Your task to perform on an android device: check data usage Image 0: 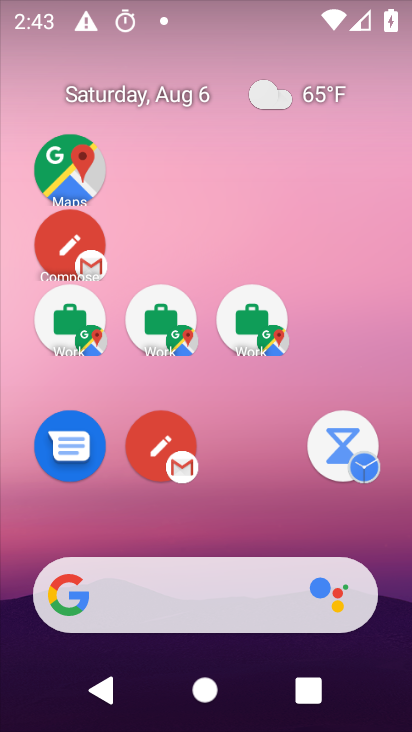
Step 0: drag from (294, 510) to (231, 217)
Your task to perform on an android device: check data usage Image 1: 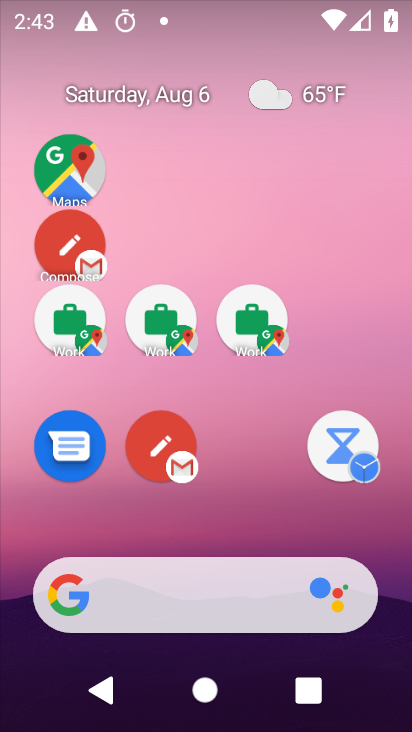
Step 1: drag from (254, 556) to (191, 280)
Your task to perform on an android device: check data usage Image 2: 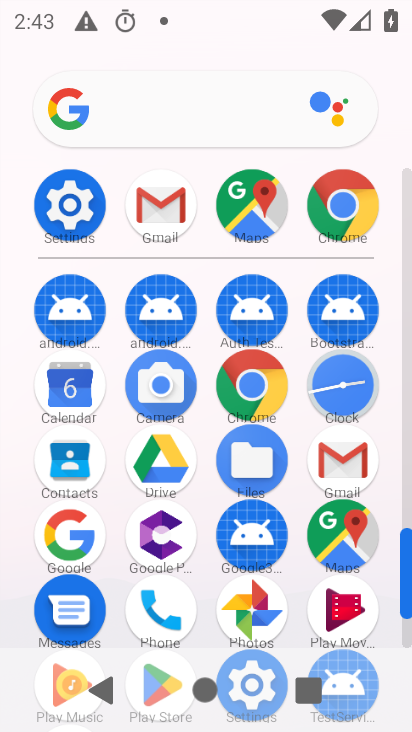
Step 2: drag from (229, 551) to (210, 446)
Your task to perform on an android device: check data usage Image 3: 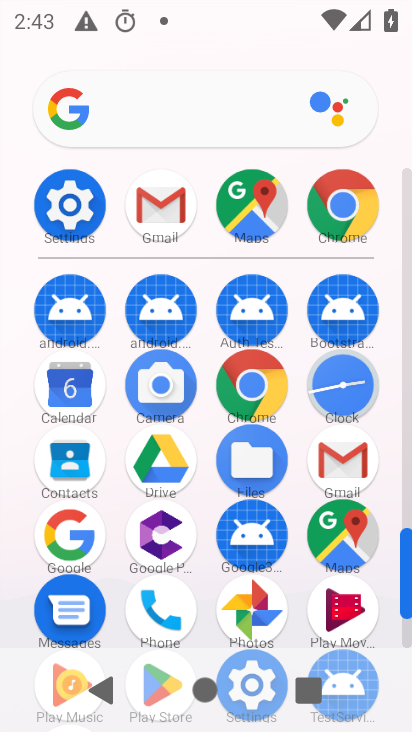
Step 3: click (86, 208)
Your task to perform on an android device: check data usage Image 4: 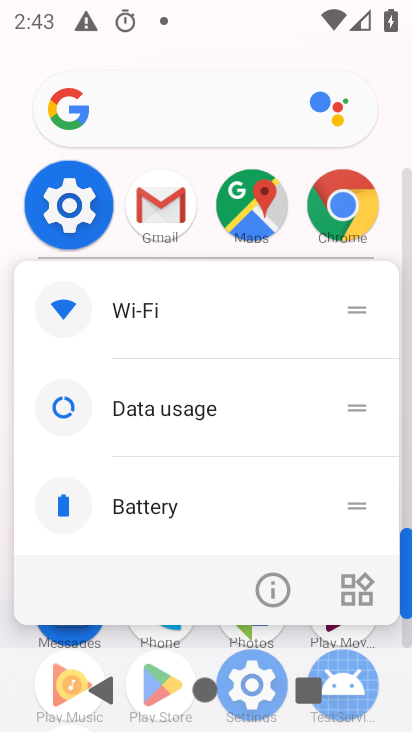
Step 4: click (45, 200)
Your task to perform on an android device: check data usage Image 5: 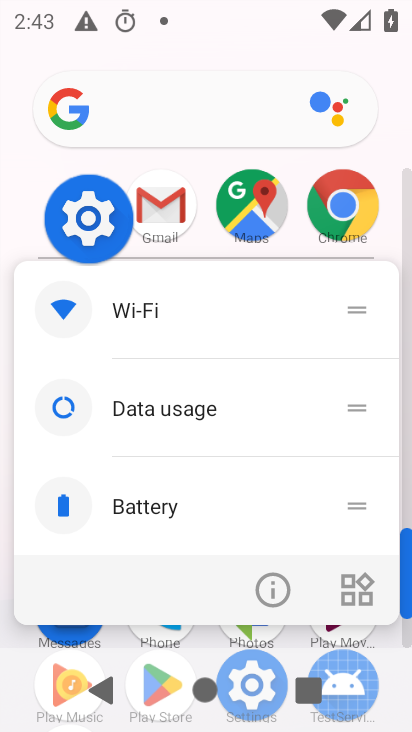
Step 5: click (72, 214)
Your task to perform on an android device: check data usage Image 6: 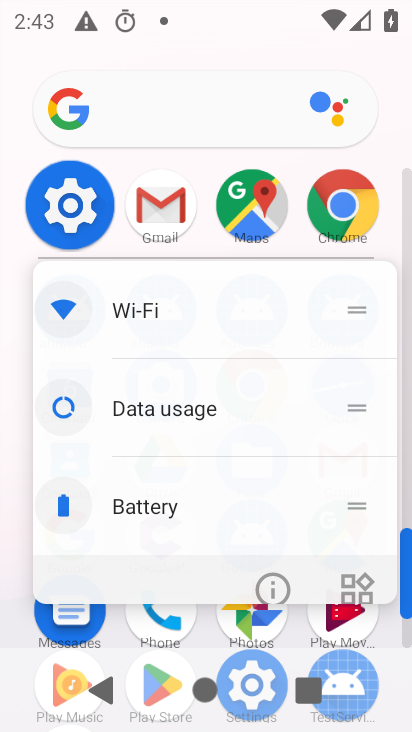
Step 6: click (92, 227)
Your task to perform on an android device: check data usage Image 7: 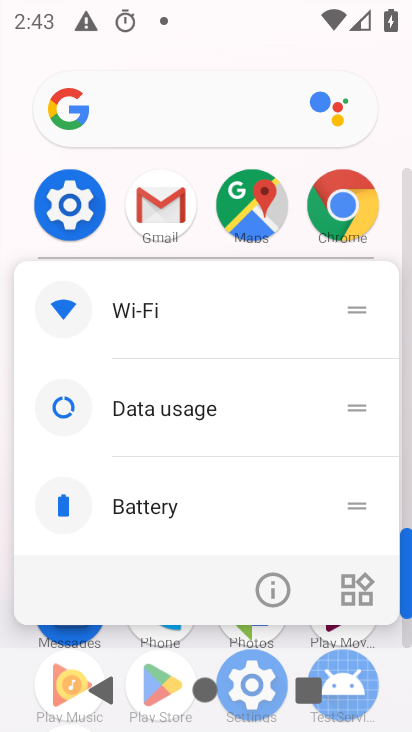
Step 7: click (71, 209)
Your task to perform on an android device: check data usage Image 8: 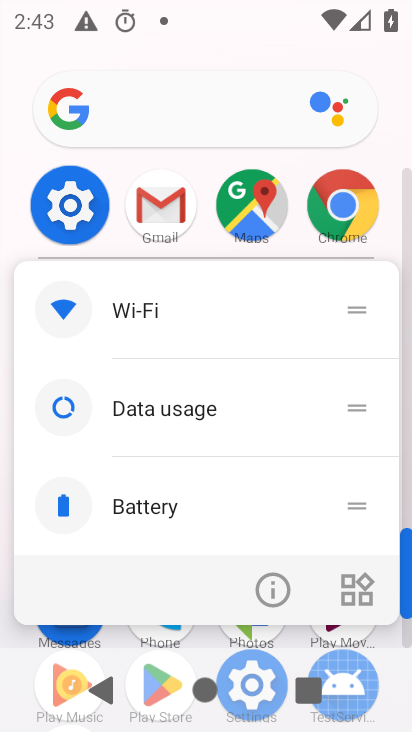
Step 8: click (71, 209)
Your task to perform on an android device: check data usage Image 9: 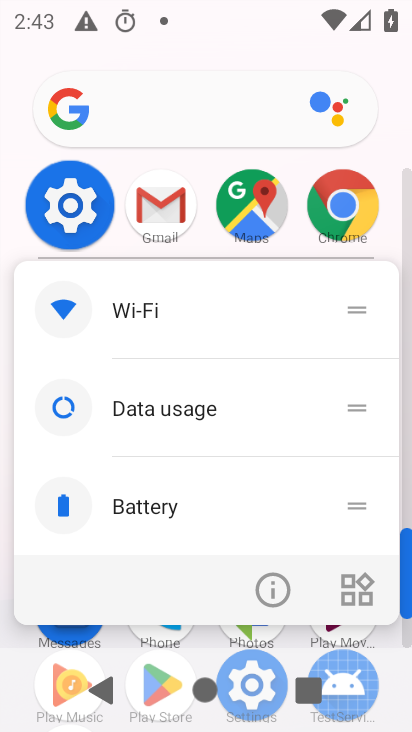
Step 9: click (76, 203)
Your task to perform on an android device: check data usage Image 10: 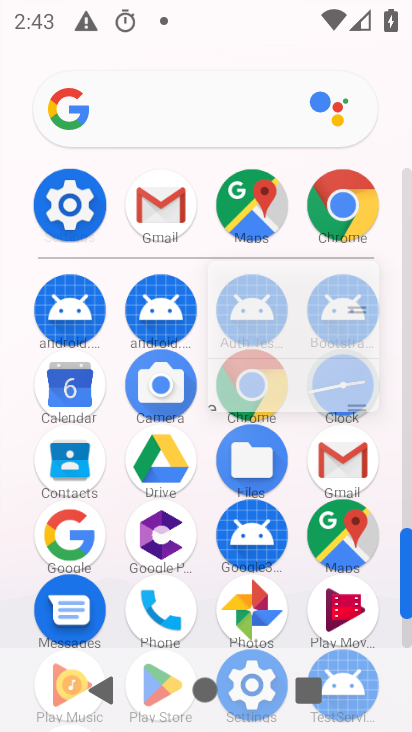
Step 10: click (76, 203)
Your task to perform on an android device: check data usage Image 11: 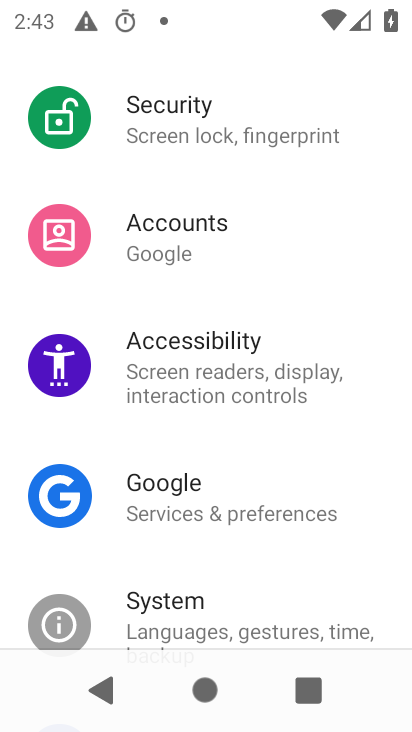
Step 11: click (77, 204)
Your task to perform on an android device: check data usage Image 12: 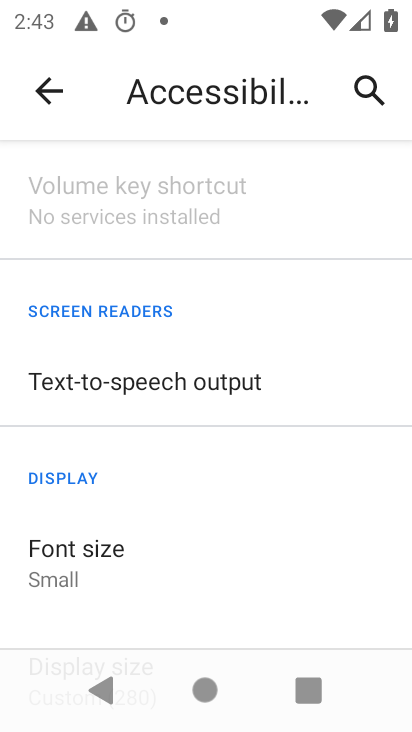
Step 12: click (39, 84)
Your task to perform on an android device: check data usage Image 13: 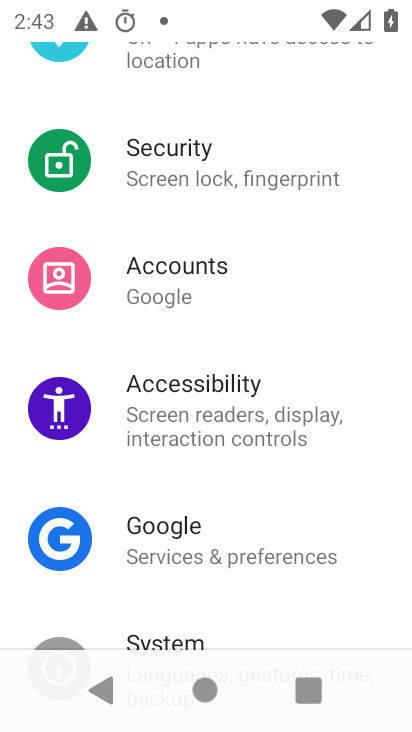
Step 13: drag from (149, 431) to (183, 530)
Your task to perform on an android device: check data usage Image 14: 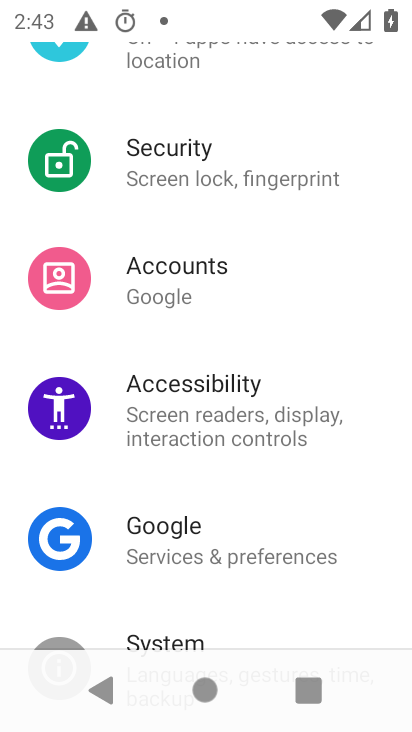
Step 14: drag from (221, 535) to (93, 488)
Your task to perform on an android device: check data usage Image 15: 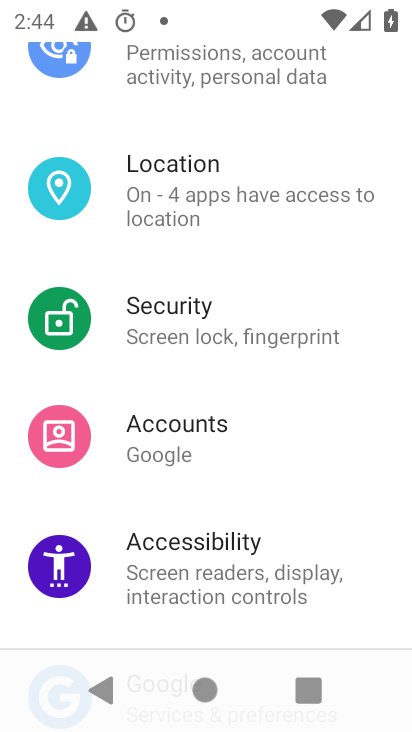
Step 15: click (131, 498)
Your task to perform on an android device: check data usage Image 16: 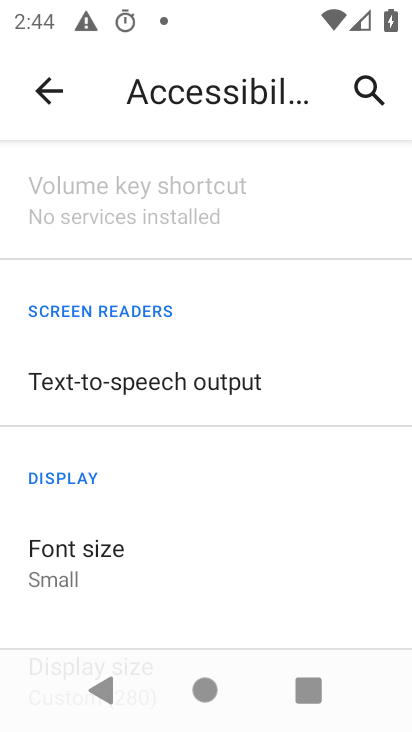
Step 16: click (52, 78)
Your task to perform on an android device: check data usage Image 17: 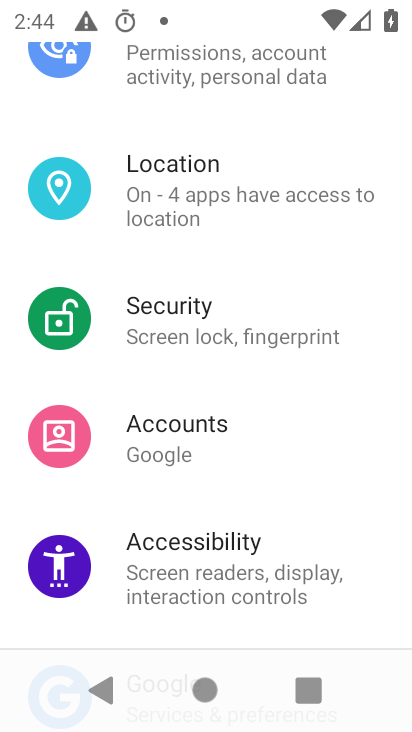
Step 17: drag from (193, 181) to (245, 604)
Your task to perform on an android device: check data usage Image 18: 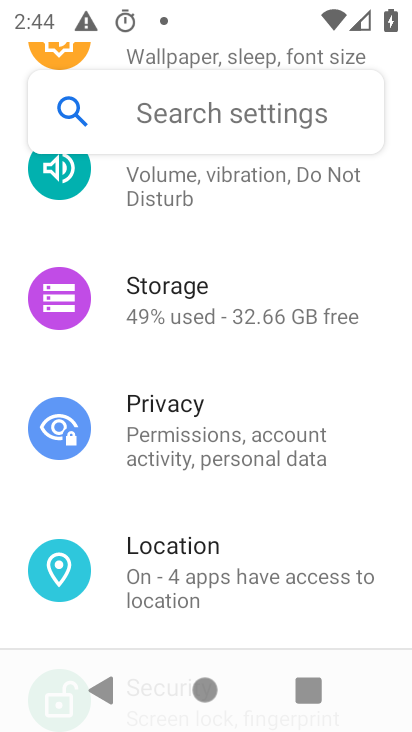
Step 18: drag from (209, 235) to (243, 499)
Your task to perform on an android device: check data usage Image 19: 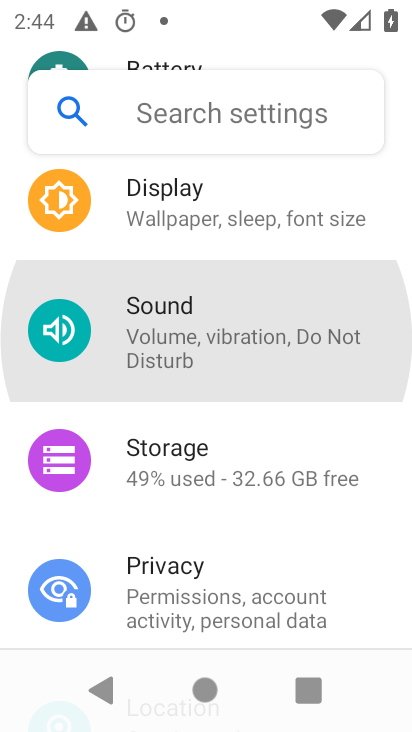
Step 19: drag from (190, 174) to (210, 609)
Your task to perform on an android device: check data usage Image 20: 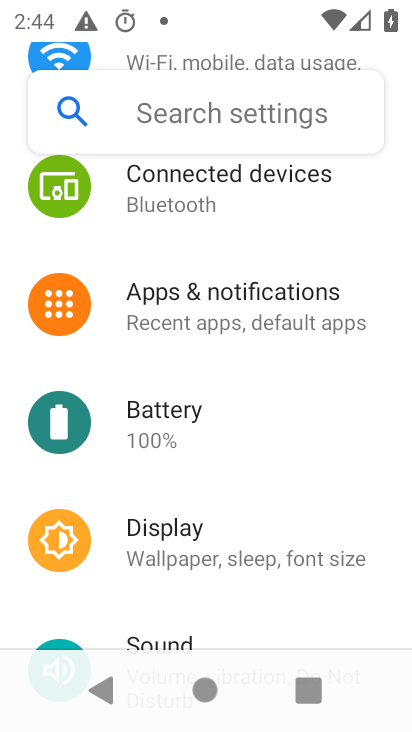
Step 20: drag from (198, 314) to (211, 587)
Your task to perform on an android device: check data usage Image 21: 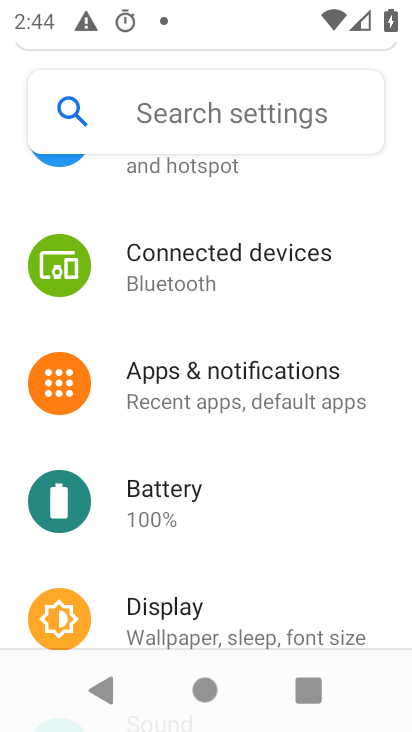
Step 21: drag from (168, 438) to (189, 641)
Your task to perform on an android device: check data usage Image 22: 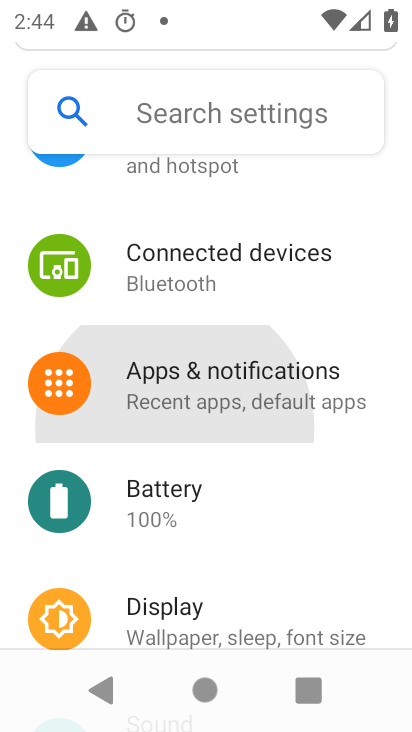
Step 22: drag from (201, 236) to (207, 527)
Your task to perform on an android device: check data usage Image 23: 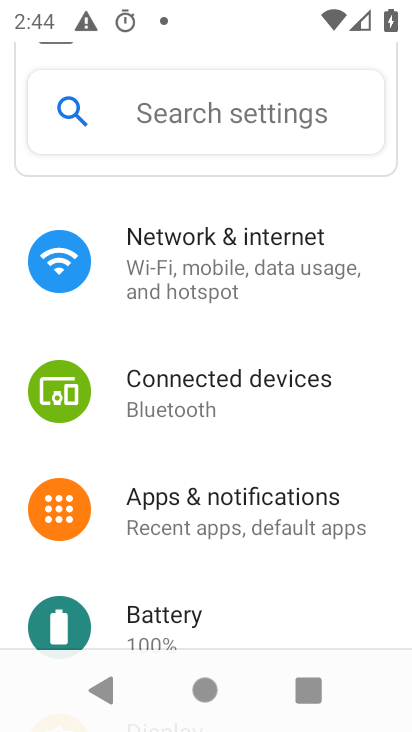
Step 23: click (203, 488)
Your task to perform on an android device: check data usage Image 24: 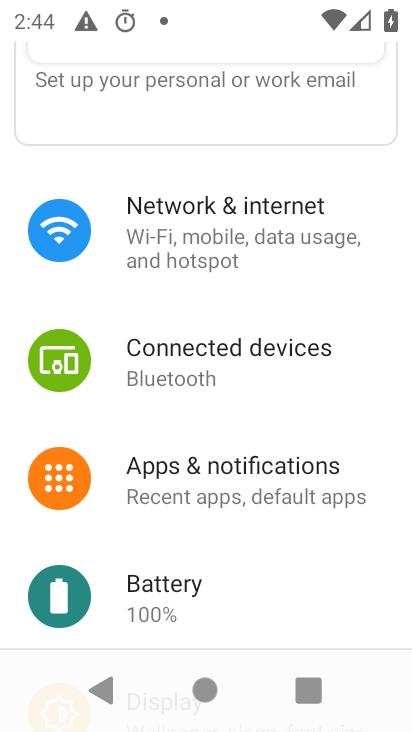
Step 24: drag from (203, 359) to (222, 532)
Your task to perform on an android device: check data usage Image 25: 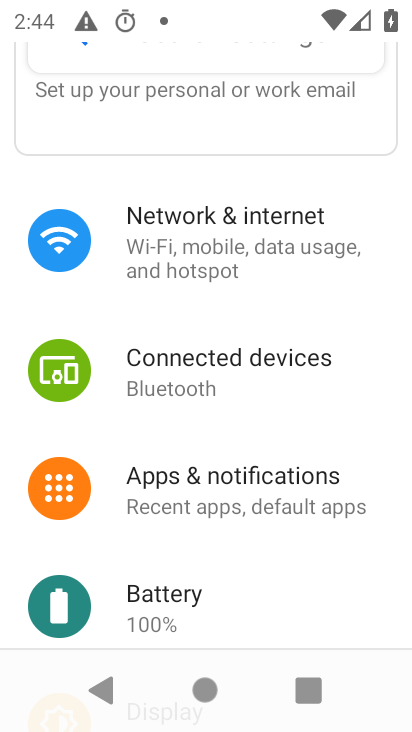
Step 25: click (211, 240)
Your task to perform on an android device: check data usage Image 26: 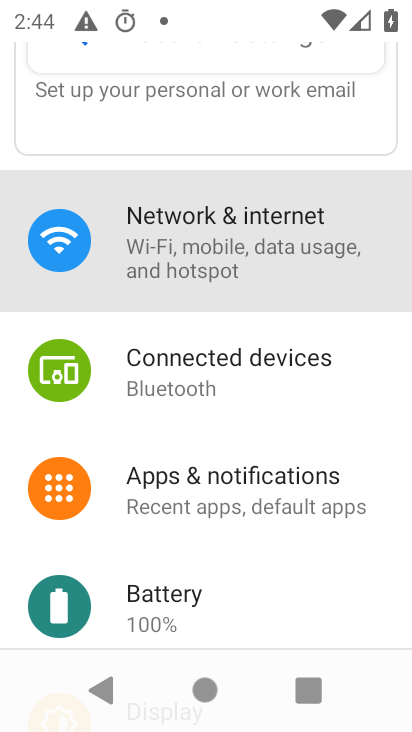
Step 26: click (211, 240)
Your task to perform on an android device: check data usage Image 27: 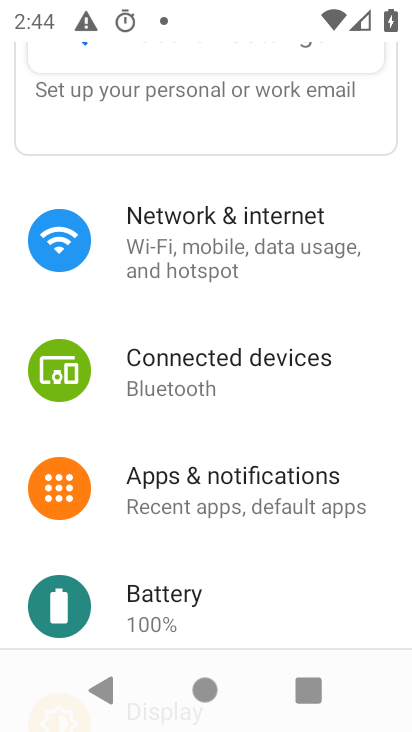
Step 27: click (211, 240)
Your task to perform on an android device: check data usage Image 28: 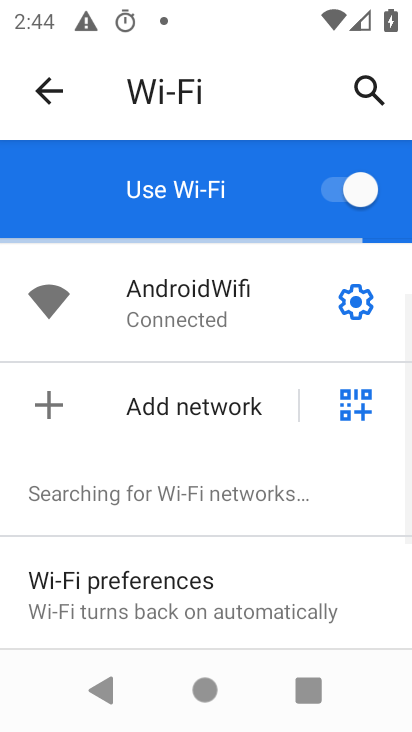
Step 28: click (52, 99)
Your task to perform on an android device: check data usage Image 29: 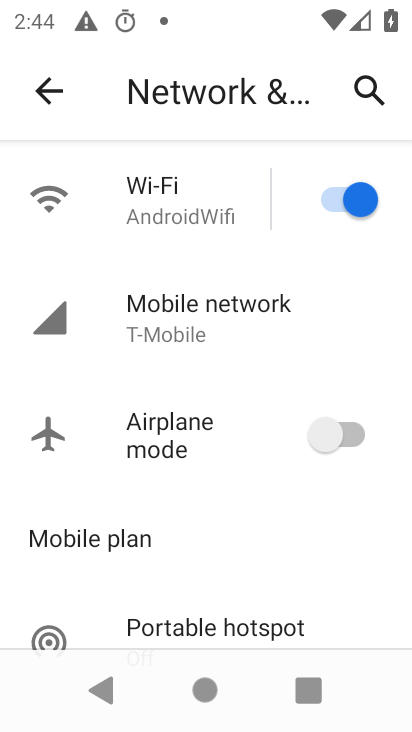
Step 29: click (187, 320)
Your task to perform on an android device: check data usage Image 30: 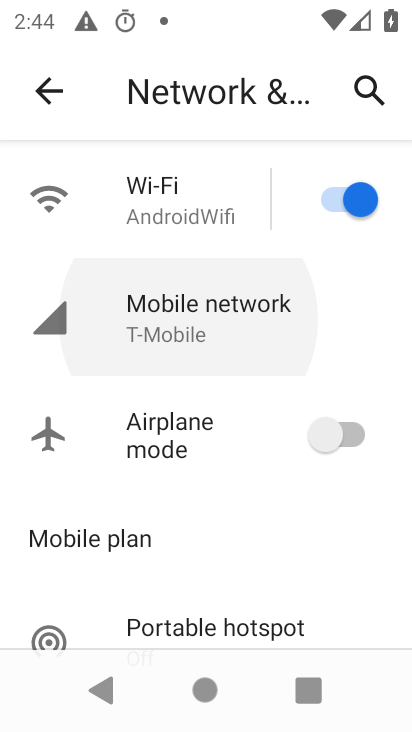
Step 30: click (187, 320)
Your task to perform on an android device: check data usage Image 31: 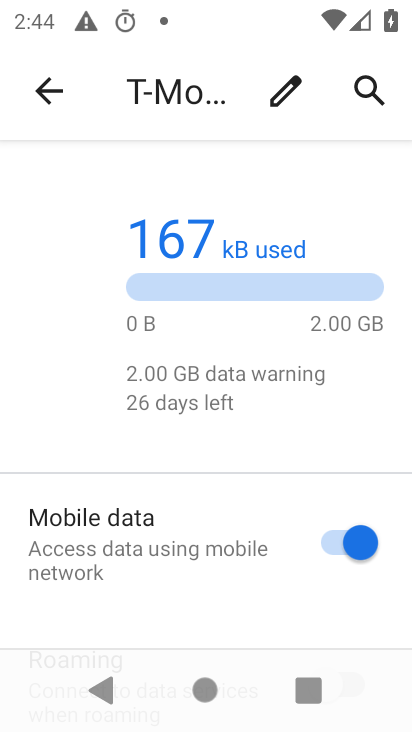
Step 31: task complete